Your task to perform on an android device: set default search engine in the chrome app Image 0: 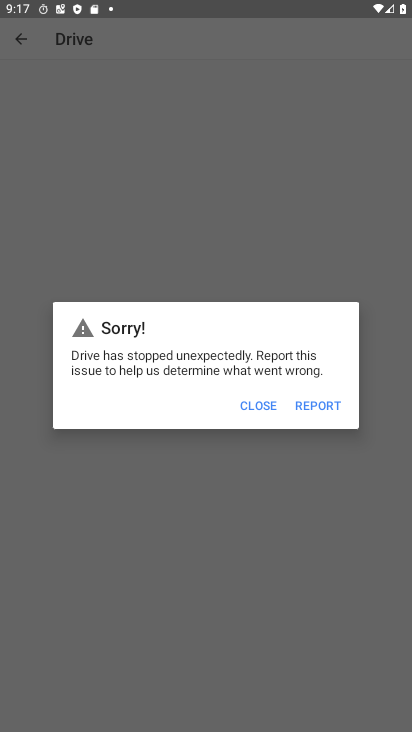
Step 0: press home button
Your task to perform on an android device: set default search engine in the chrome app Image 1: 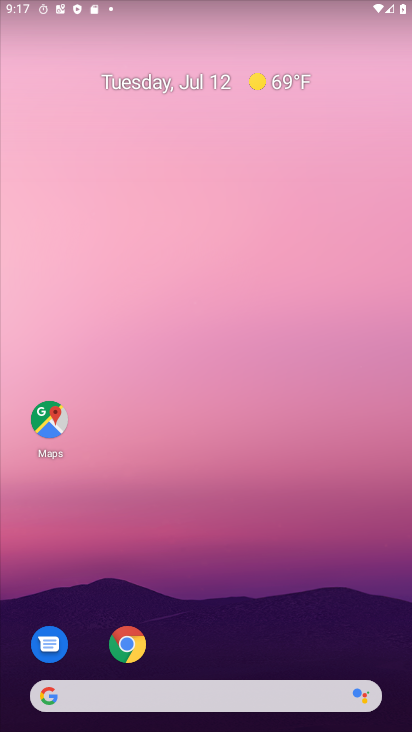
Step 1: drag from (232, 637) to (267, 8)
Your task to perform on an android device: set default search engine in the chrome app Image 2: 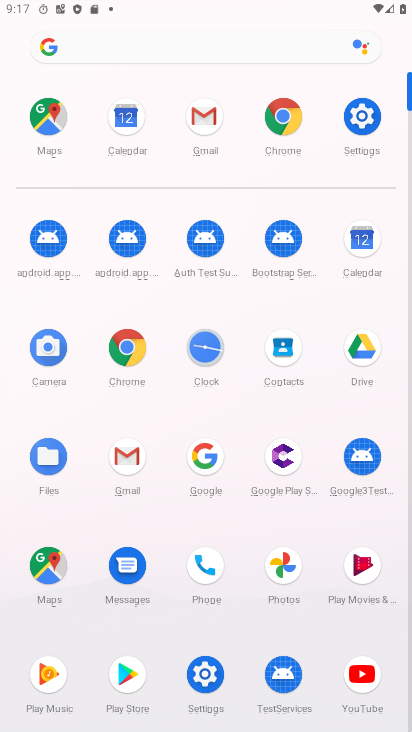
Step 2: click (283, 112)
Your task to perform on an android device: set default search engine in the chrome app Image 3: 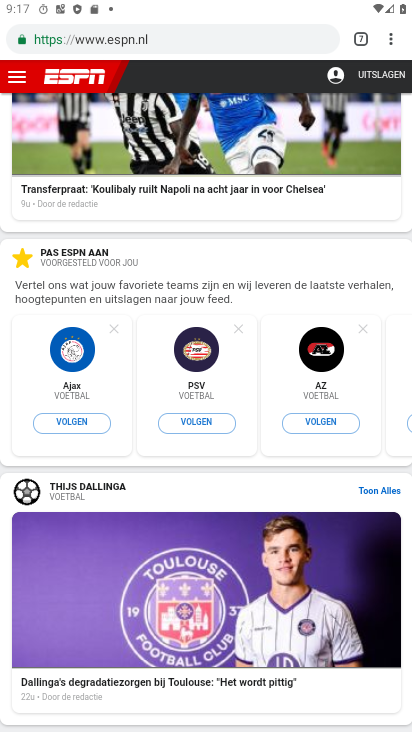
Step 3: click (361, 32)
Your task to perform on an android device: set default search engine in the chrome app Image 4: 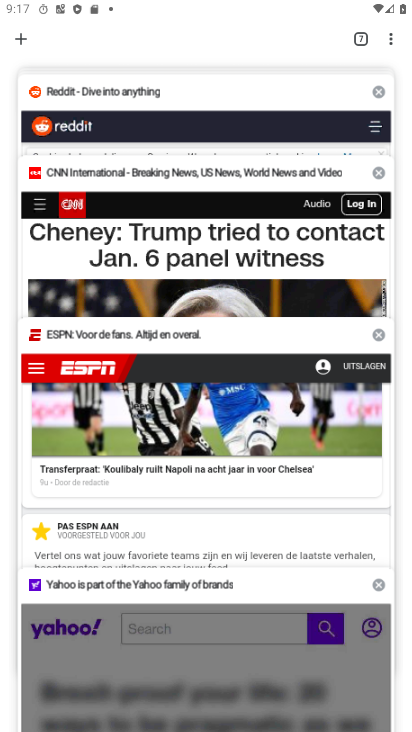
Step 4: click (388, 37)
Your task to perform on an android device: set default search engine in the chrome app Image 5: 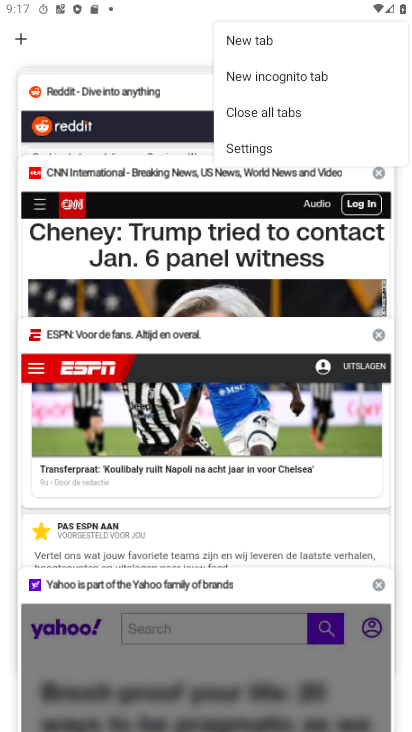
Step 5: click (265, 155)
Your task to perform on an android device: set default search engine in the chrome app Image 6: 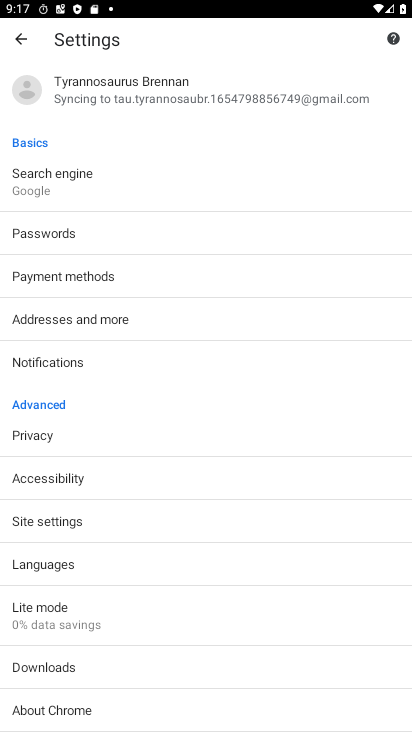
Step 6: click (82, 182)
Your task to perform on an android device: set default search engine in the chrome app Image 7: 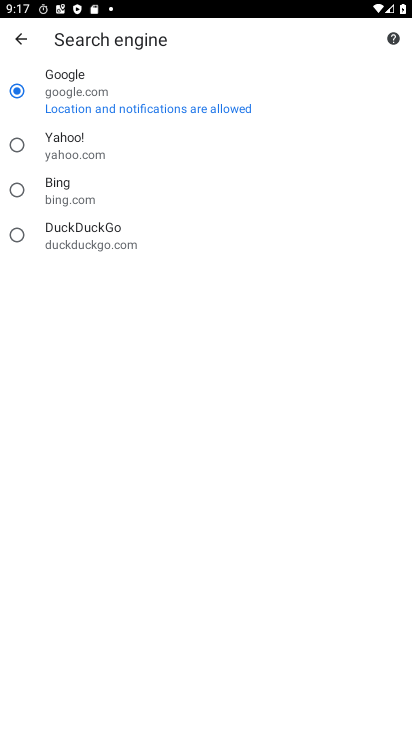
Step 7: click (20, 186)
Your task to perform on an android device: set default search engine in the chrome app Image 8: 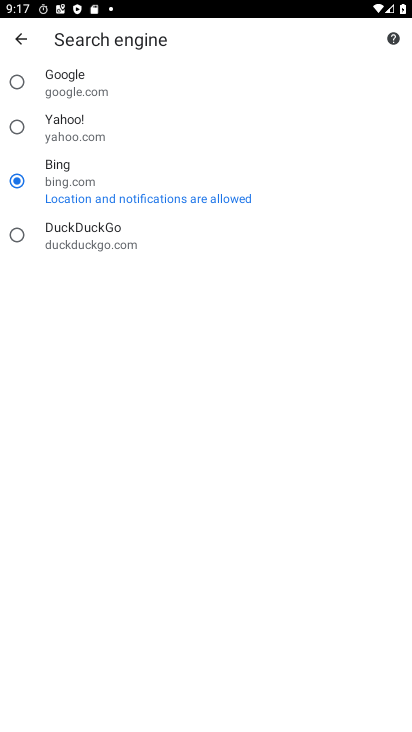
Step 8: task complete